Your task to perform on an android device: change the clock display to show seconds Image 0: 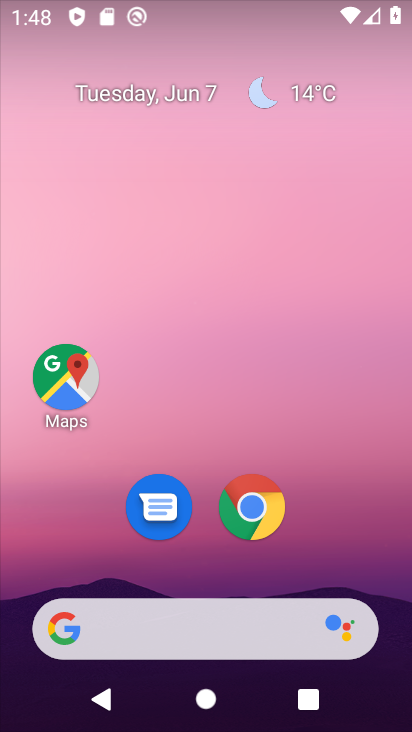
Step 0: drag from (357, 502) to (312, 35)
Your task to perform on an android device: change the clock display to show seconds Image 1: 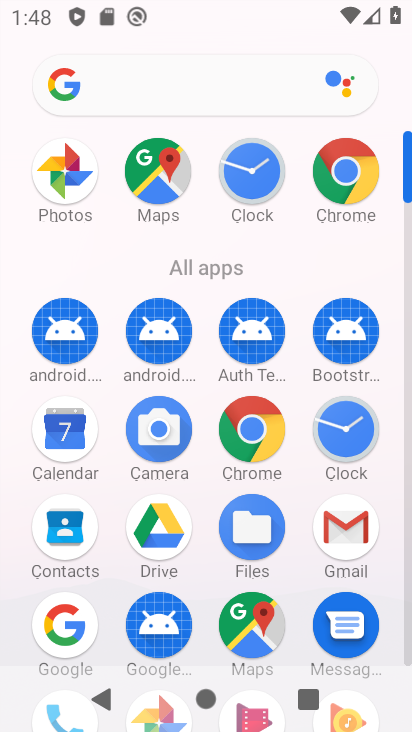
Step 1: click (357, 419)
Your task to perform on an android device: change the clock display to show seconds Image 2: 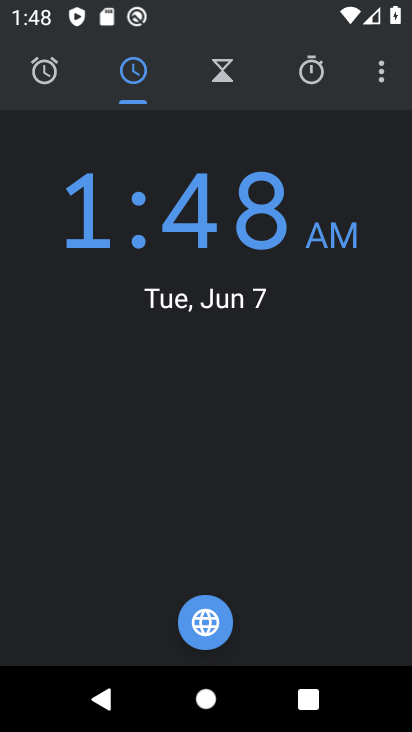
Step 2: click (383, 83)
Your task to perform on an android device: change the clock display to show seconds Image 3: 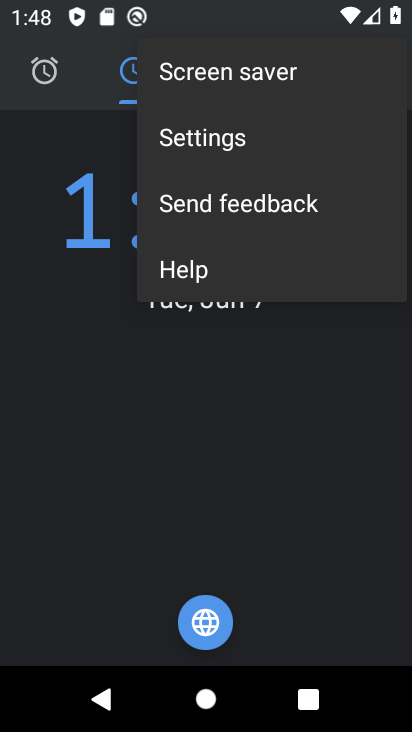
Step 3: click (231, 155)
Your task to perform on an android device: change the clock display to show seconds Image 4: 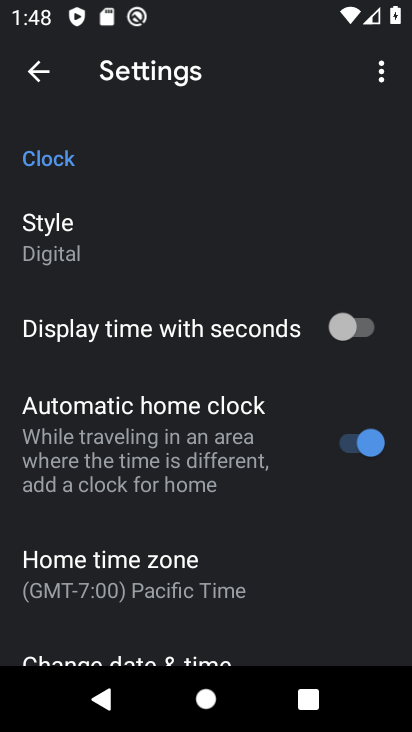
Step 4: click (348, 327)
Your task to perform on an android device: change the clock display to show seconds Image 5: 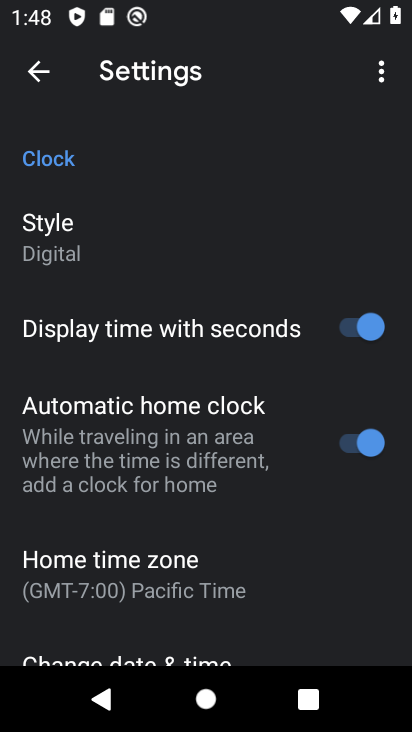
Step 5: task complete